Your task to perform on an android device: Go to CNN.com Image 0: 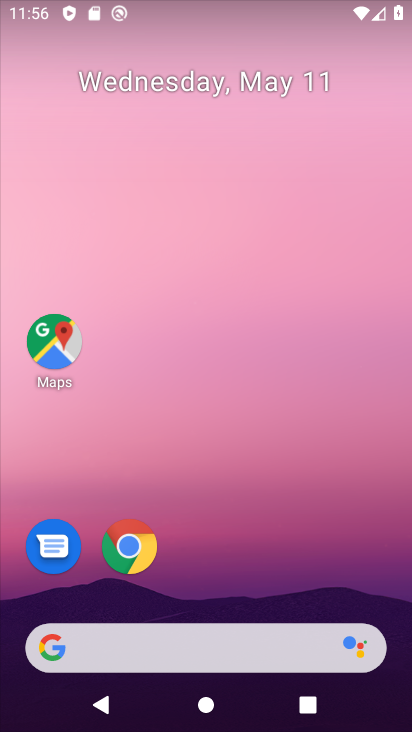
Step 0: click (154, 567)
Your task to perform on an android device: Go to CNN.com Image 1: 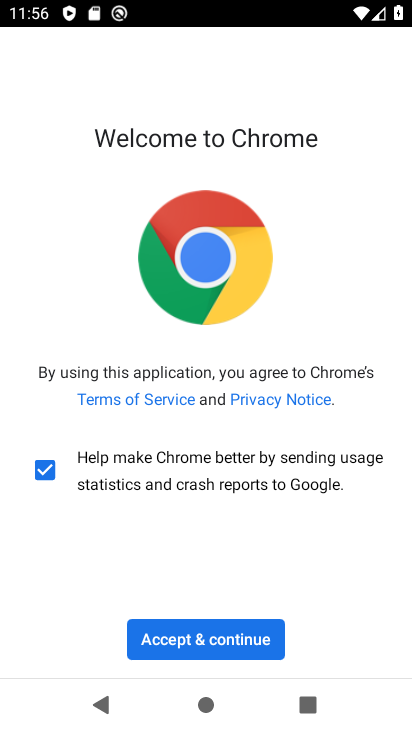
Step 1: click (271, 653)
Your task to perform on an android device: Go to CNN.com Image 2: 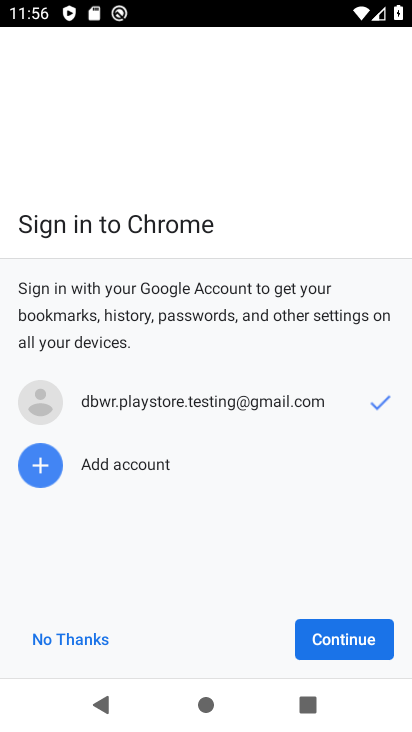
Step 2: click (370, 626)
Your task to perform on an android device: Go to CNN.com Image 3: 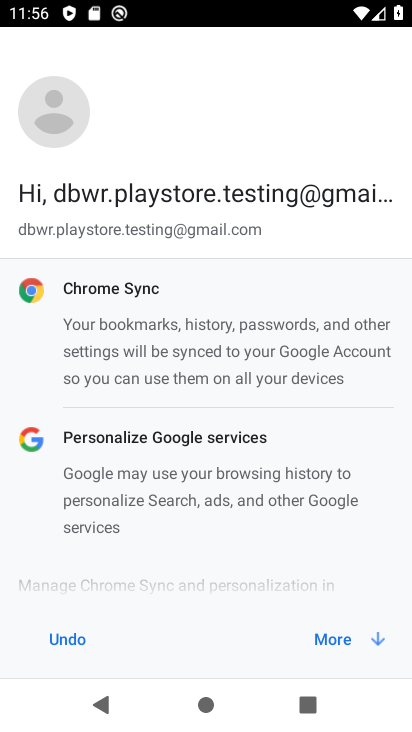
Step 3: click (370, 626)
Your task to perform on an android device: Go to CNN.com Image 4: 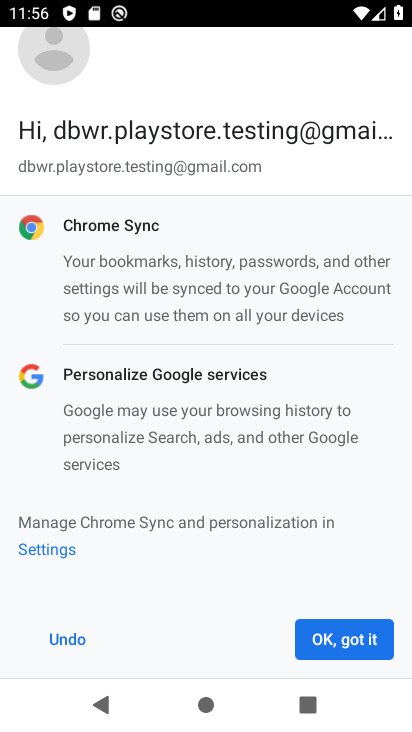
Step 4: click (372, 635)
Your task to perform on an android device: Go to CNN.com Image 5: 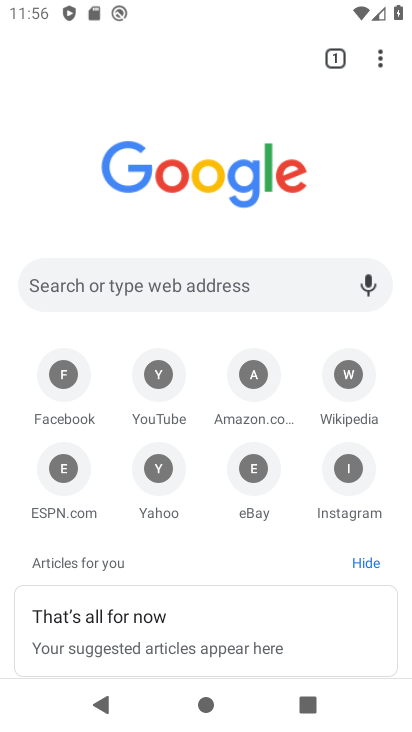
Step 5: click (211, 291)
Your task to perform on an android device: Go to CNN.com Image 6: 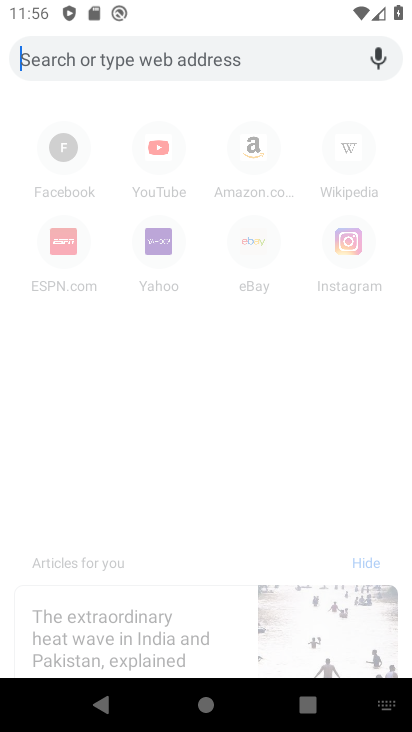
Step 6: type "CNN.com"
Your task to perform on an android device: Go to CNN.com Image 7: 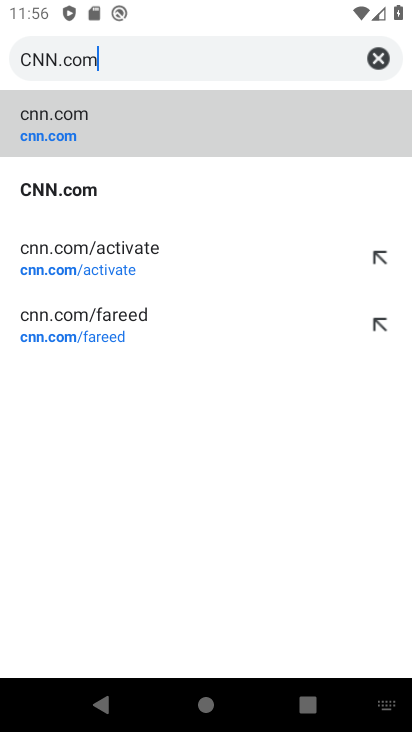
Step 7: click (139, 192)
Your task to perform on an android device: Go to CNN.com Image 8: 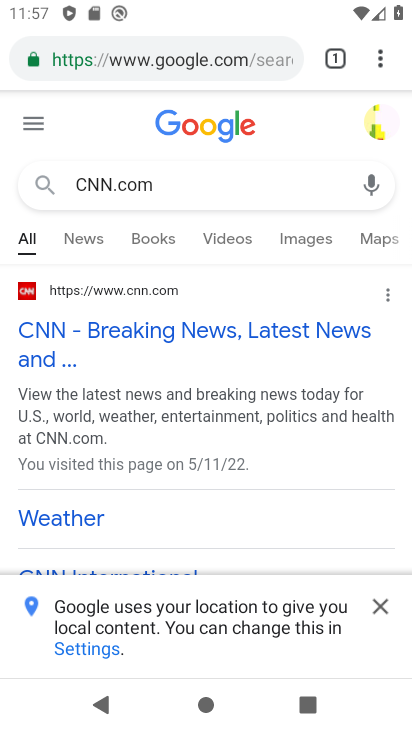
Step 8: click (143, 336)
Your task to perform on an android device: Go to CNN.com Image 9: 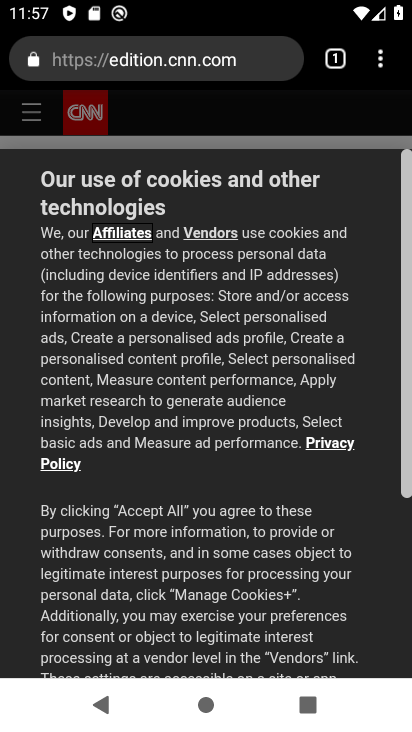
Step 9: drag from (185, 586) to (293, 288)
Your task to perform on an android device: Go to CNN.com Image 10: 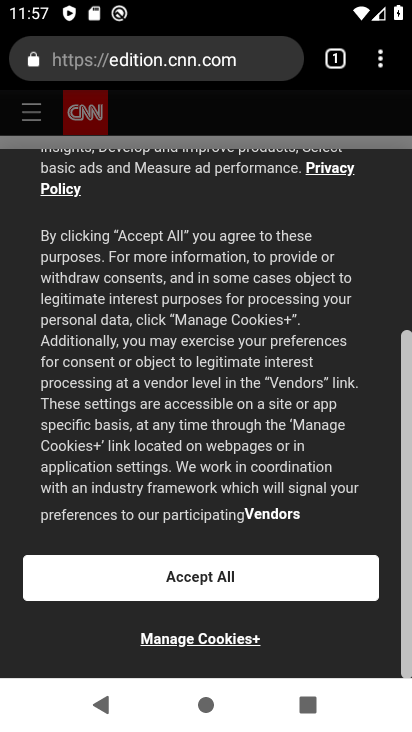
Step 10: click (199, 594)
Your task to perform on an android device: Go to CNN.com Image 11: 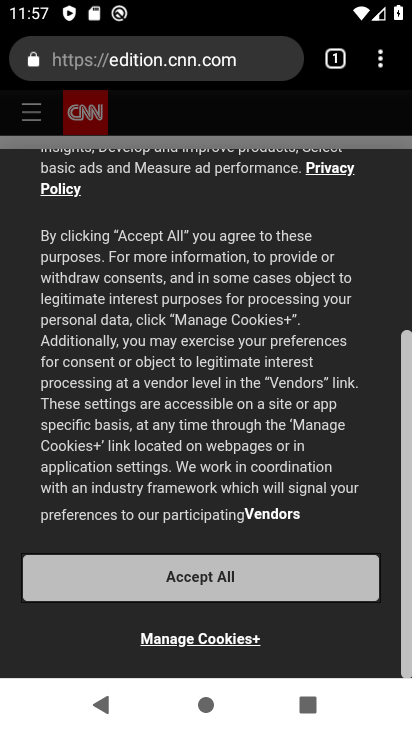
Step 11: click (204, 588)
Your task to perform on an android device: Go to CNN.com Image 12: 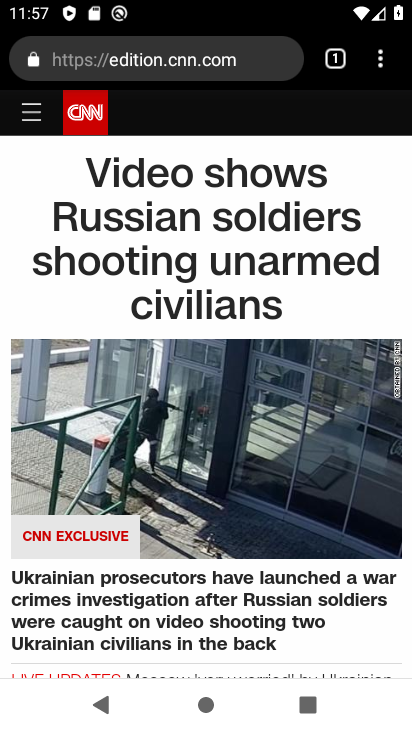
Step 12: task complete